Your task to perform on an android device: move an email to a new category in the gmail app Image 0: 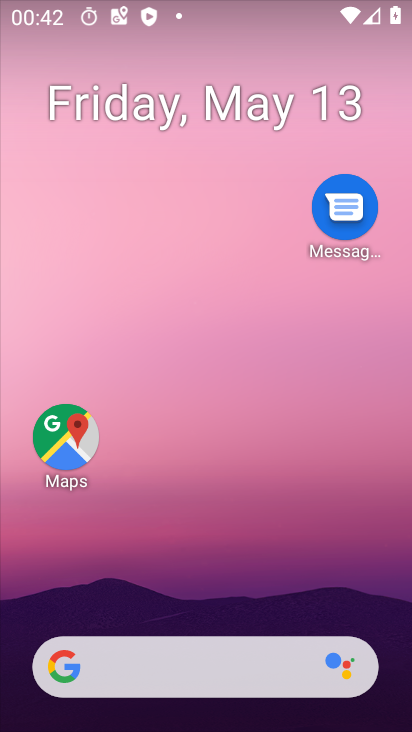
Step 0: drag from (238, 537) to (137, 185)
Your task to perform on an android device: move an email to a new category in the gmail app Image 1: 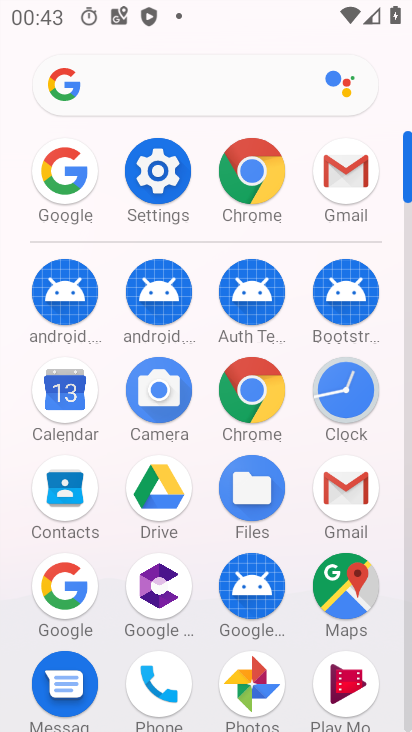
Step 1: click (338, 195)
Your task to perform on an android device: move an email to a new category in the gmail app Image 2: 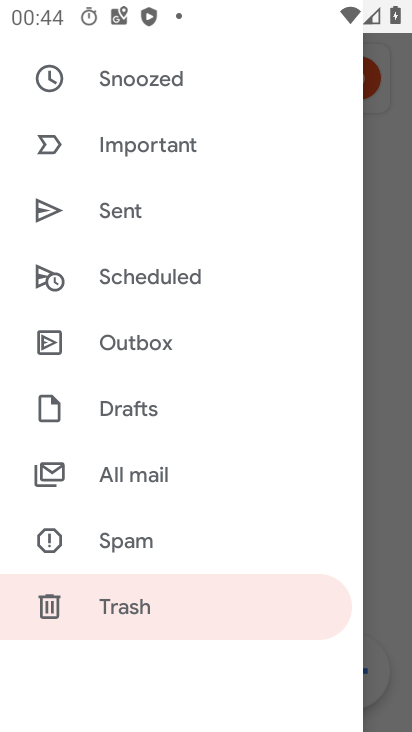
Step 2: task complete